Your task to perform on an android device: Open wifi settings Image 0: 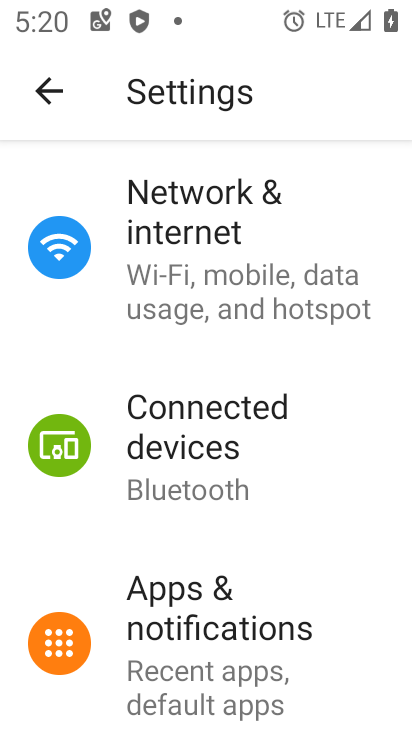
Step 0: click (191, 229)
Your task to perform on an android device: Open wifi settings Image 1: 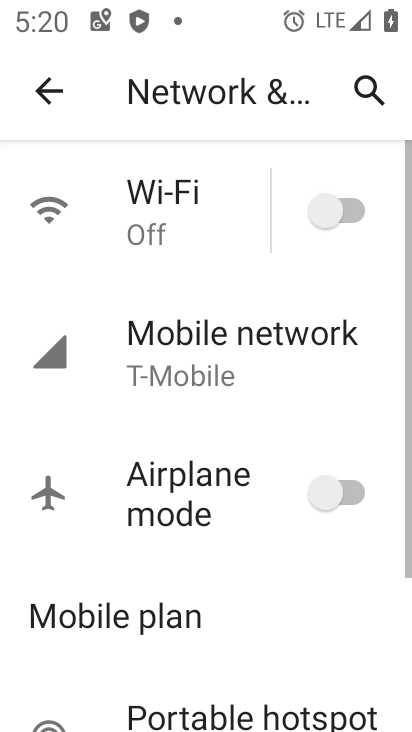
Step 1: click (183, 211)
Your task to perform on an android device: Open wifi settings Image 2: 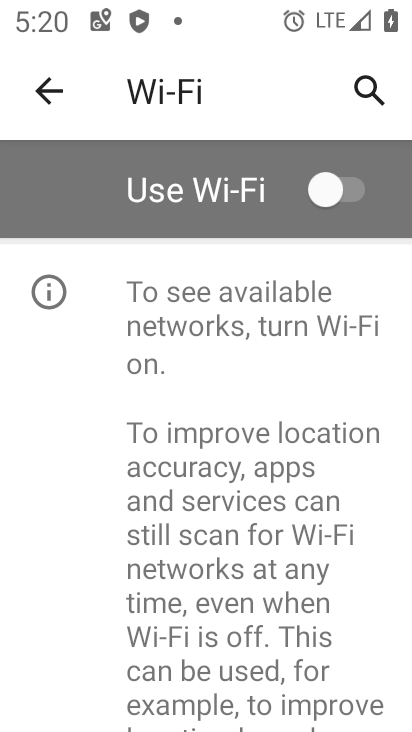
Step 2: task complete